Your task to perform on an android device: Set the phone to "Do not disturb". Image 0: 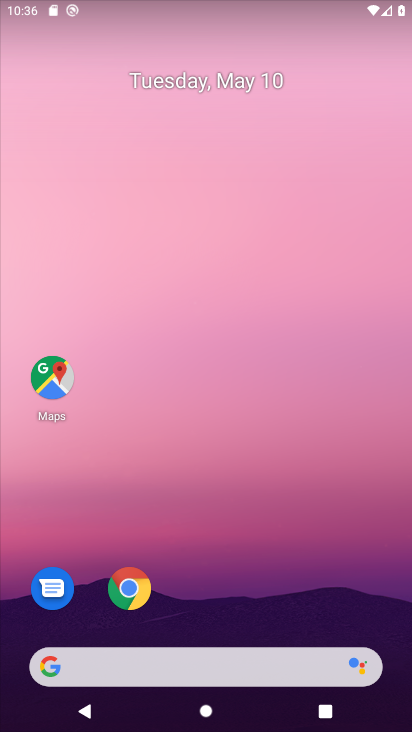
Step 0: drag from (247, 623) to (242, 178)
Your task to perform on an android device: Set the phone to "Do not disturb". Image 1: 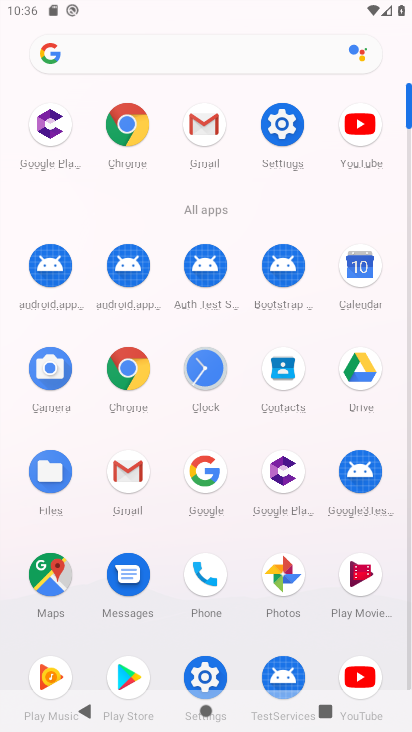
Step 1: click (287, 87)
Your task to perform on an android device: Set the phone to "Do not disturb". Image 2: 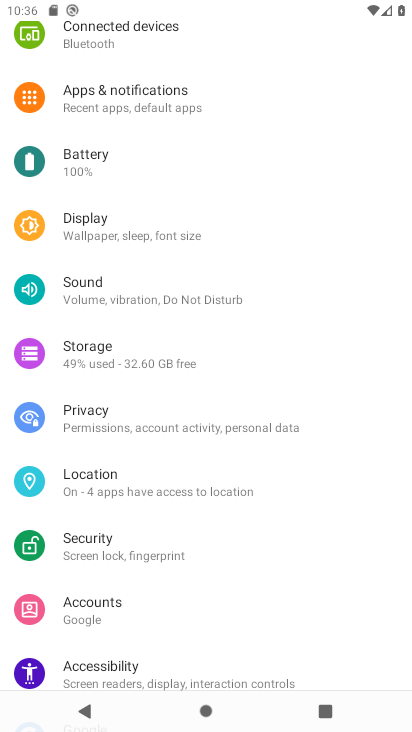
Step 2: click (128, 295)
Your task to perform on an android device: Set the phone to "Do not disturb". Image 3: 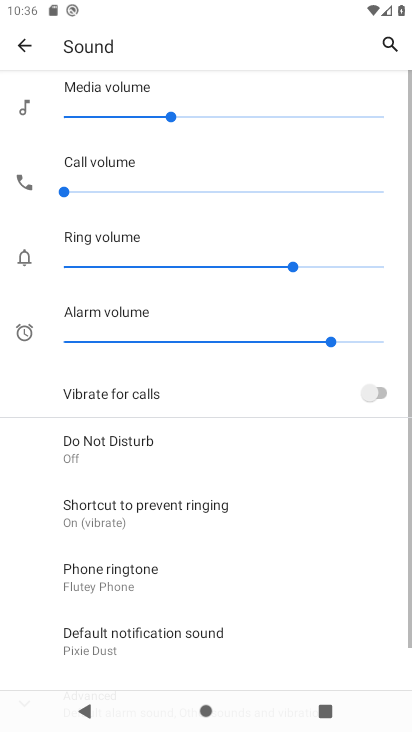
Step 3: drag from (211, 642) to (253, 336)
Your task to perform on an android device: Set the phone to "Do not disturb". Image 4: 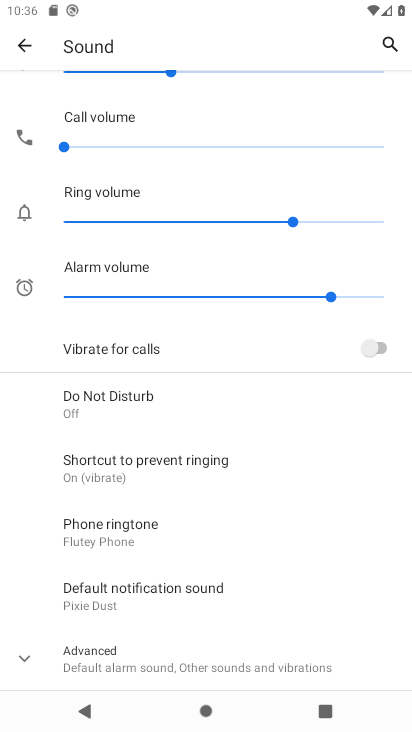
Step 4: click (179, 411)
Your task to perform on an android device: Set the phone to "Do not disturb". Image 5: 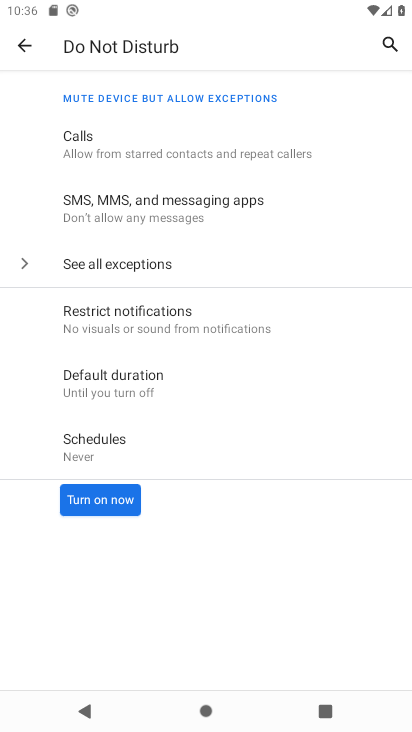
Step 5: click (131, 508)
Your task to perform on an android device: Set the phone to "Do not disturb". Image 6: 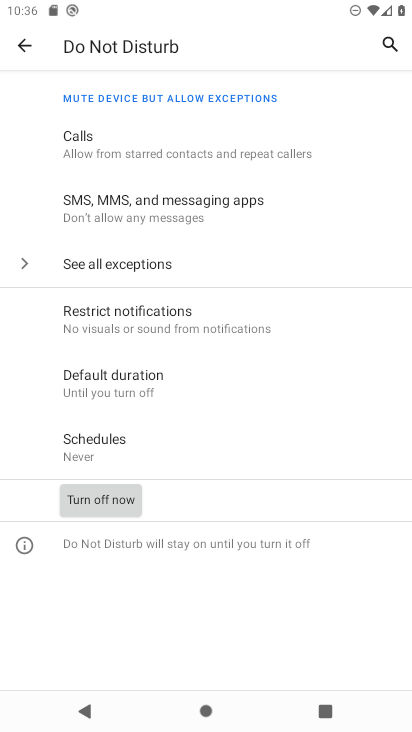
Step 6: task complete